Your task to perform on an android device: toggle translation in the chrome app Image 0: 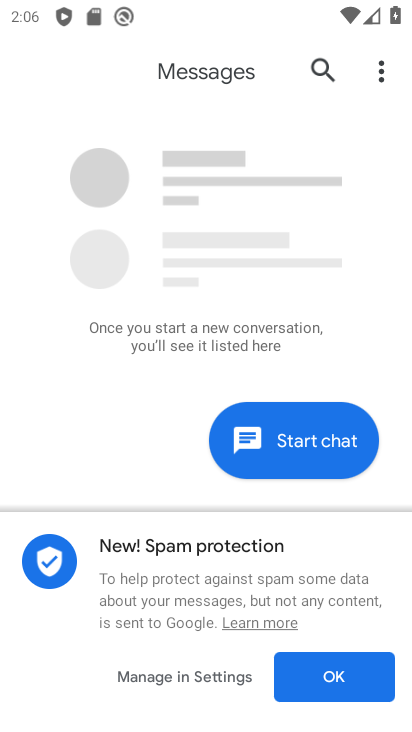
Step 0: press home button
Your task to perform on an android device: toggle translation in the chrome app Image 1: 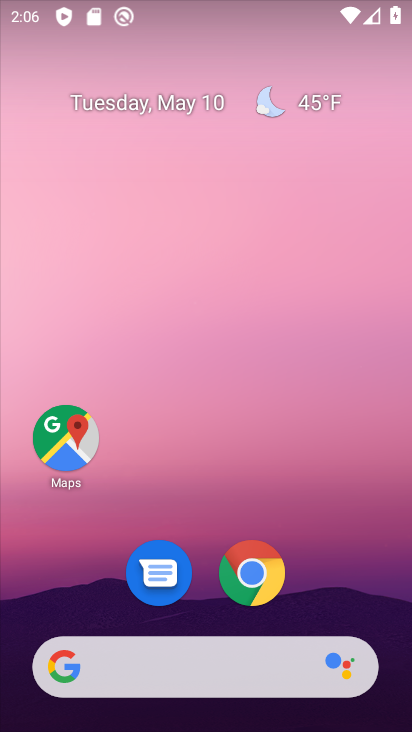
Step 1: click (255, 555)
Your task to perform on an android device: toggle translation in the chrome app Image 2: 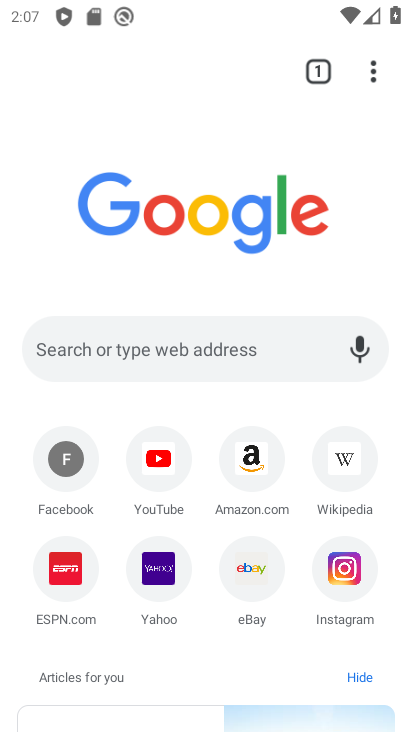
Step 2: drag from (371, 73) to (141, 592)
Your task to perform on an android device: toggle translation in the chrome app Image 3: 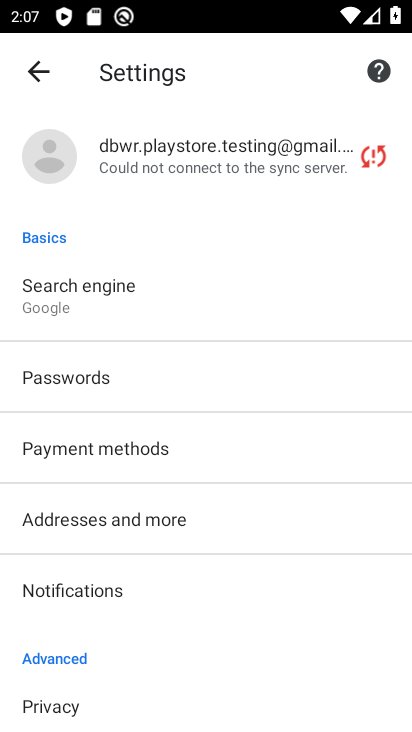
Step 3: drag from (199, 504) to (203, 391)
Your task to perform on an android device: toggle translation in the chrome app Image 4: 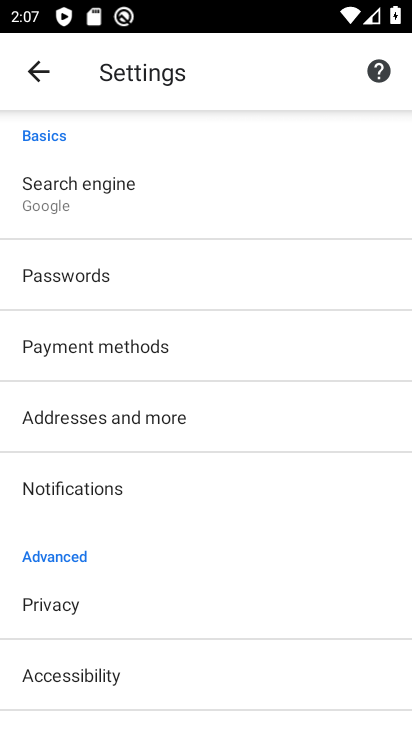
Step 4: drag from (104, 644) to (142, 388)
Your task to perform on an android device: toggle translation in the chrome app Image 5: 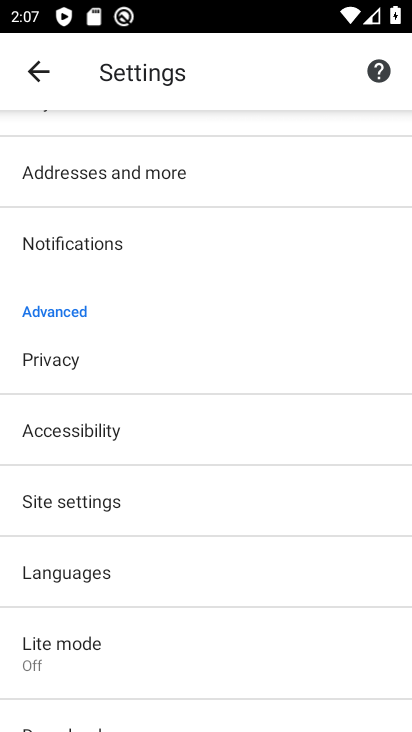
Step 5: click (95, 565)
Your task to perform on an android device: toggle translation in the chrome app Image 6: 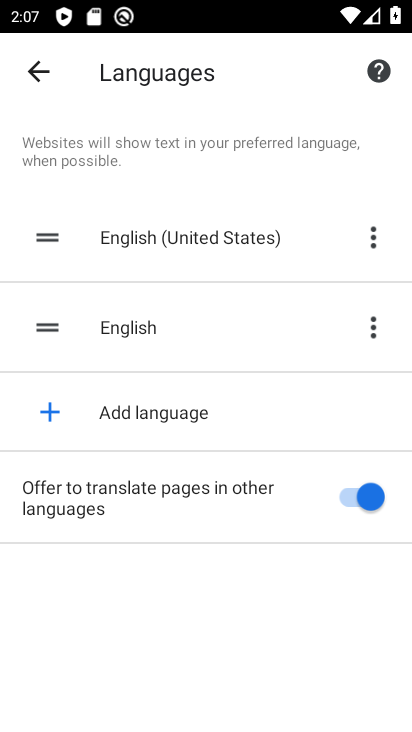
Step 6: click (353, 481)
Your task to perform on an android device: toggle translation in the chrome app Image 7: 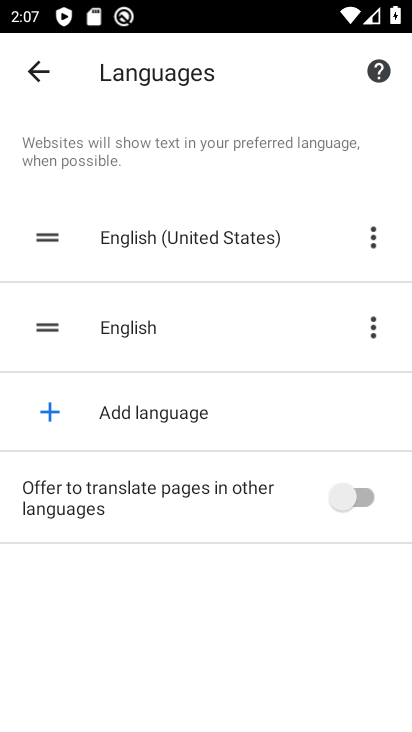
Step 7: task complete